Your task to perform on an android device: set an alarm Image 0: 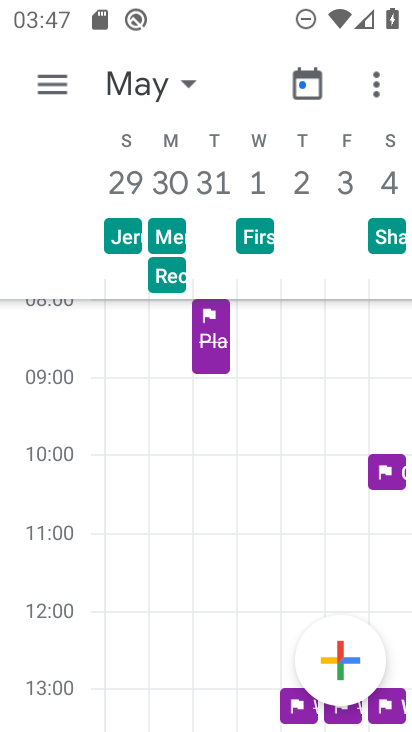
Step 0: press home button
Your task to perform on an android device: set an alarm Image 1: 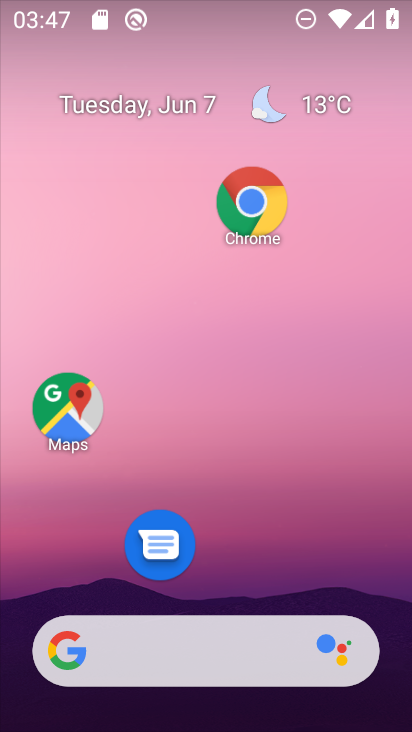
Step 1: drag from (276, 552) to (333, 152)
Your task to perform on an android device: set an alarm Image 2: 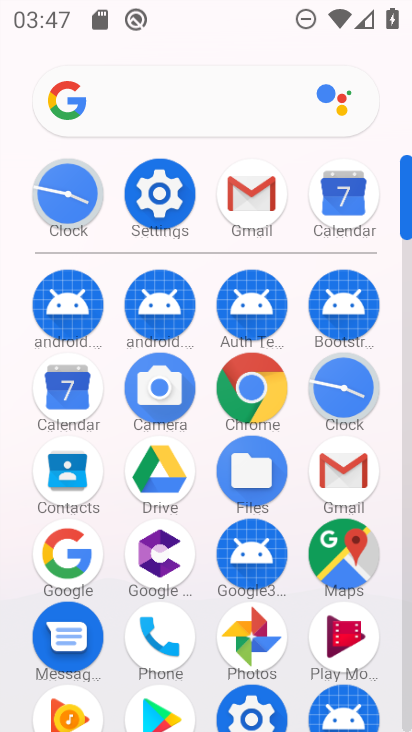
Step 2: click (63, 181)
Your task to perform on an android device: set an alarm Image 3: 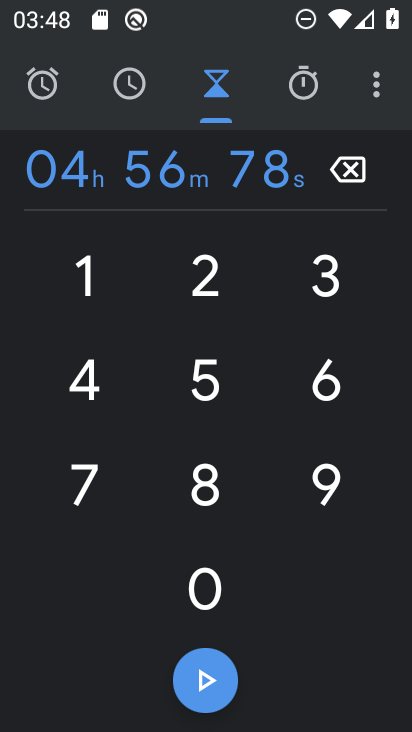
Step 3: click (49, 86)
Your task to perform on an android device: set an alarm Image 4: 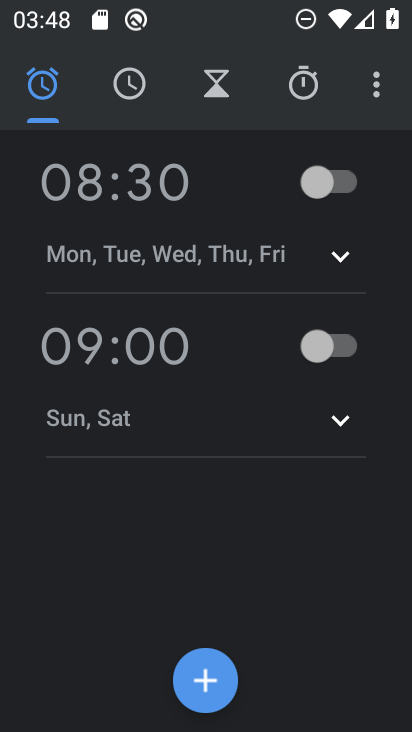
Step 4: click (327, 196)
Your task to perform on an android device: set an alarm Image 5: 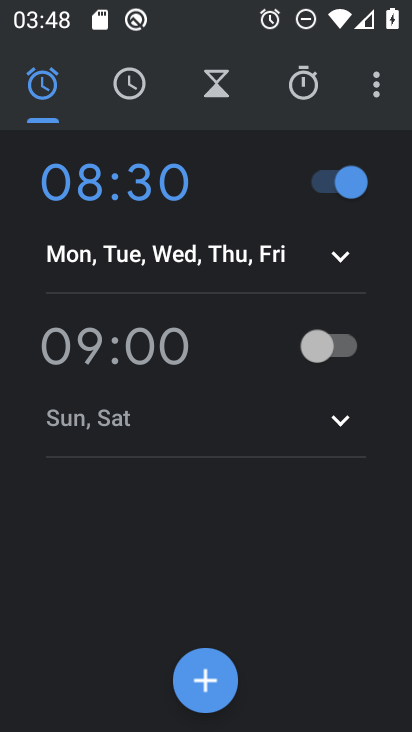
Step 5: task complete